Your task to perform on an android device: open chrome and create a bookmark for the current page Image 0: 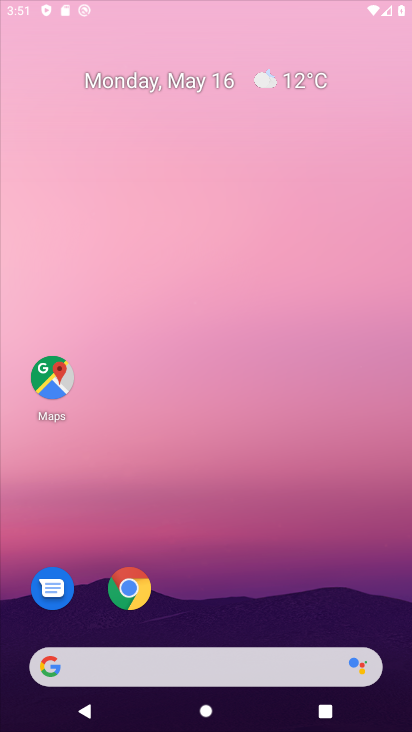
Step 0: drag from (199, 616) to (245, 202)
Your task to perform on an android device: open chrome and create a bookmark for the current page Image 1: 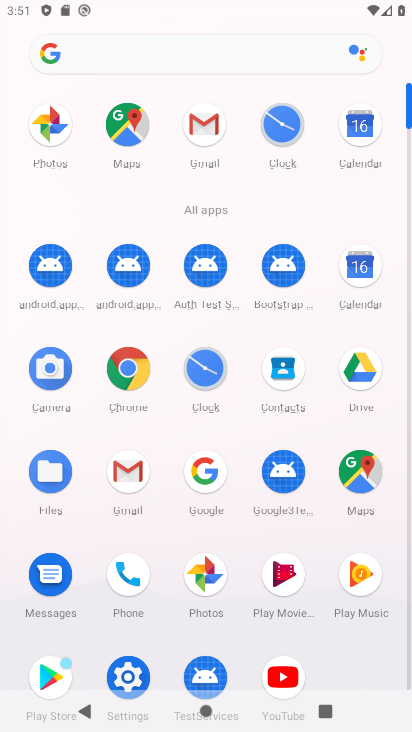
Step 1: click (130, 394)
Your task to perform on an android device: open chrome and create a bookmark for the current page Image 2: 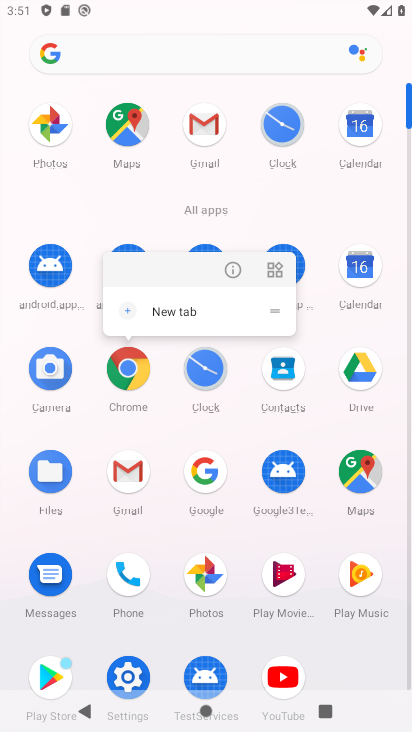
Step 2: click (133, 392)
Your task to perform on an android device: open chrome and create a bookmark for the current page Image 3: 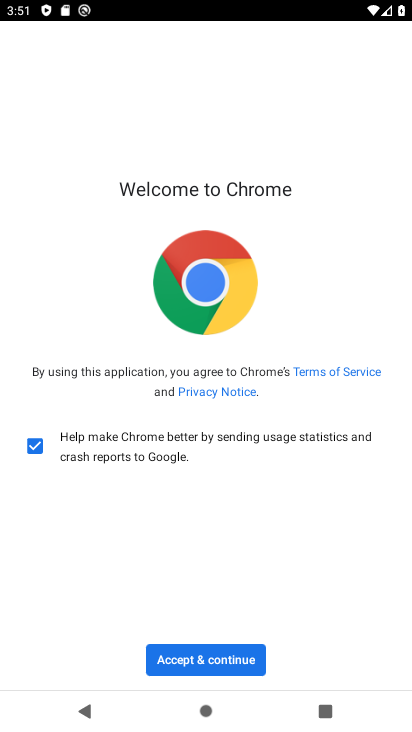
Step 3: click (197, 659)
Your task to perform on an android device: open chrome and create a bookmark for the current page Image 4: 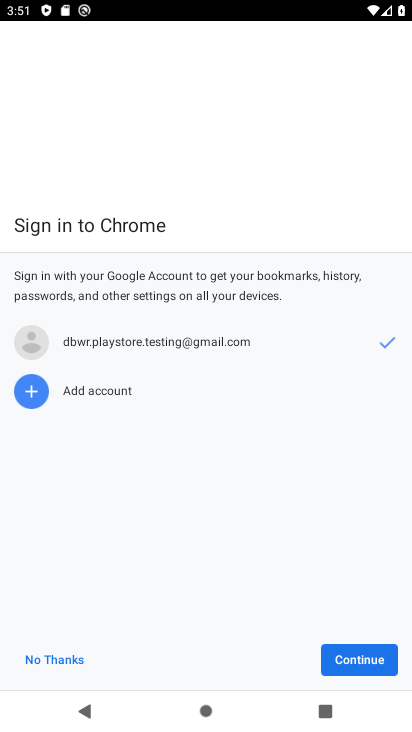
Step 4: click (384, 664)
Your task to perform on an android device: open chrome and create a bookmark for the current page Image 5: 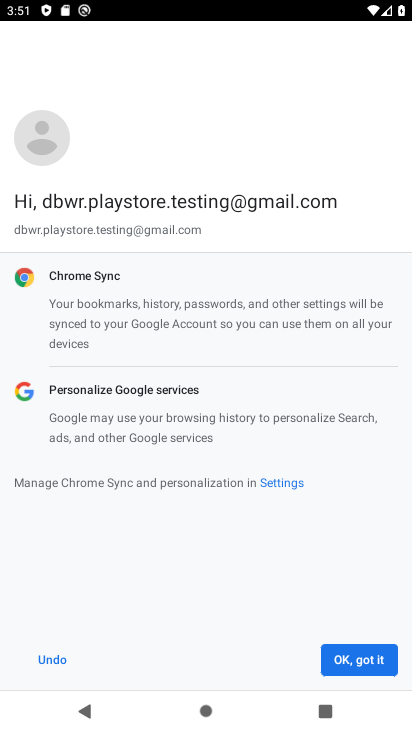
Step 5: click (377, 665)
Your task to perform on an android device: open chrome and create a bookmark for the current page Image 6: 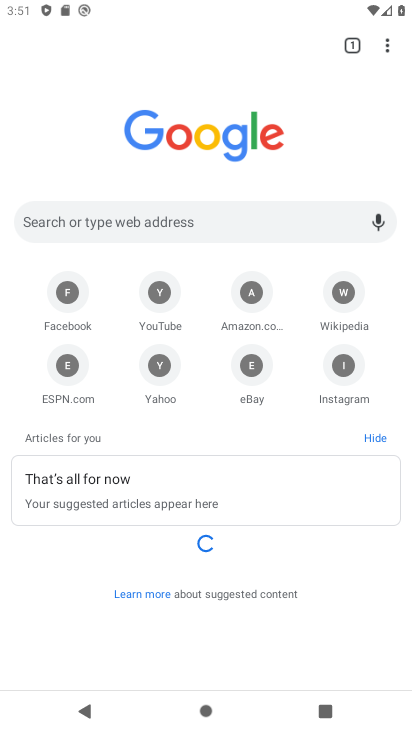
Step 6: task complete